Your task to perform on an android device: install app "Microsoft Authenticator" Image 0: 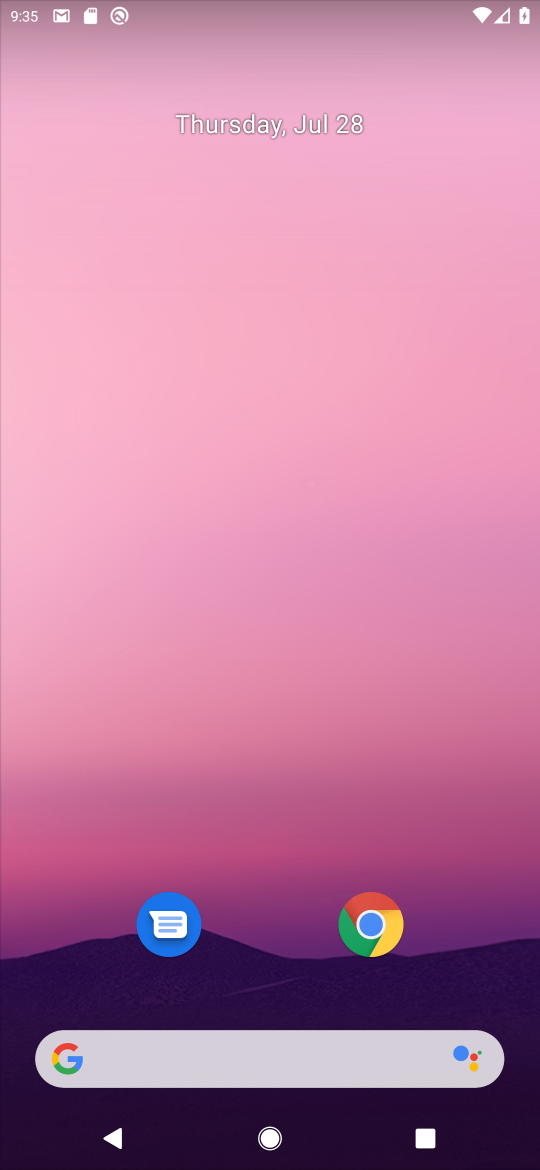
Step 0: drag from (267, 1055) to (330, 187)
Your task to perform on an android device: install app "Microsoft Authenticator" Image 1: 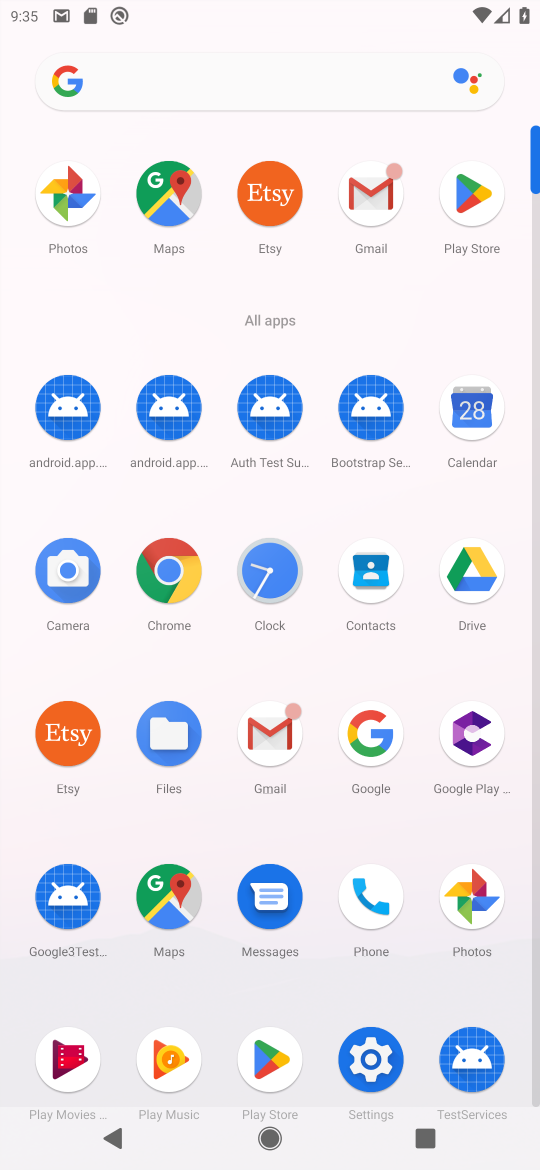
Step 1: click (261, 1078)
Your task to perform on an android device: install app "Microsoft Authenticator" Image 2: 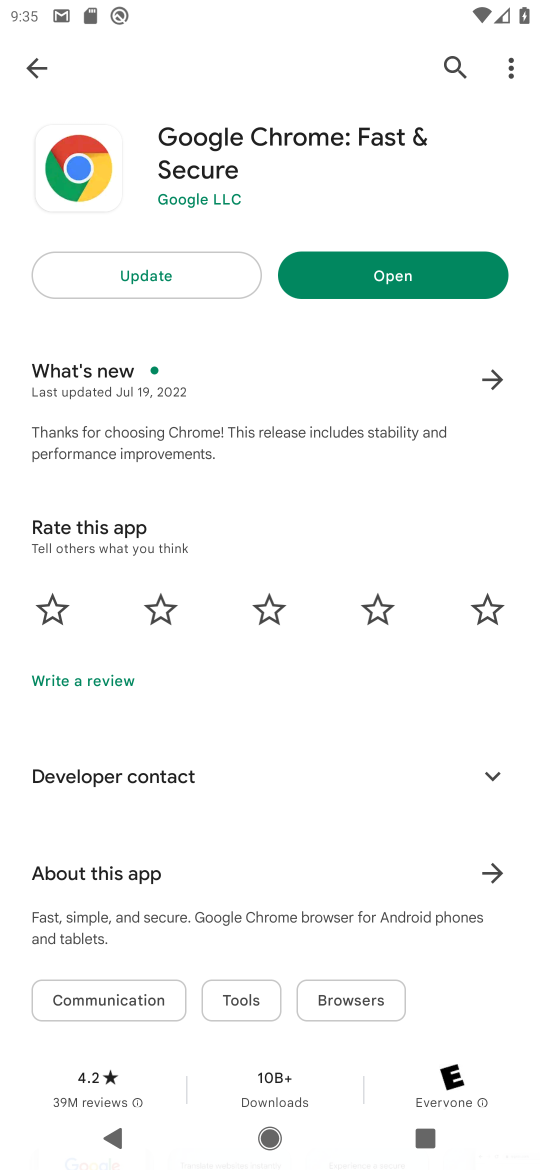
Step 2: click (457, 59)
Your task to perform on an android device: install app "Microsoft Authenticator" Image 3: 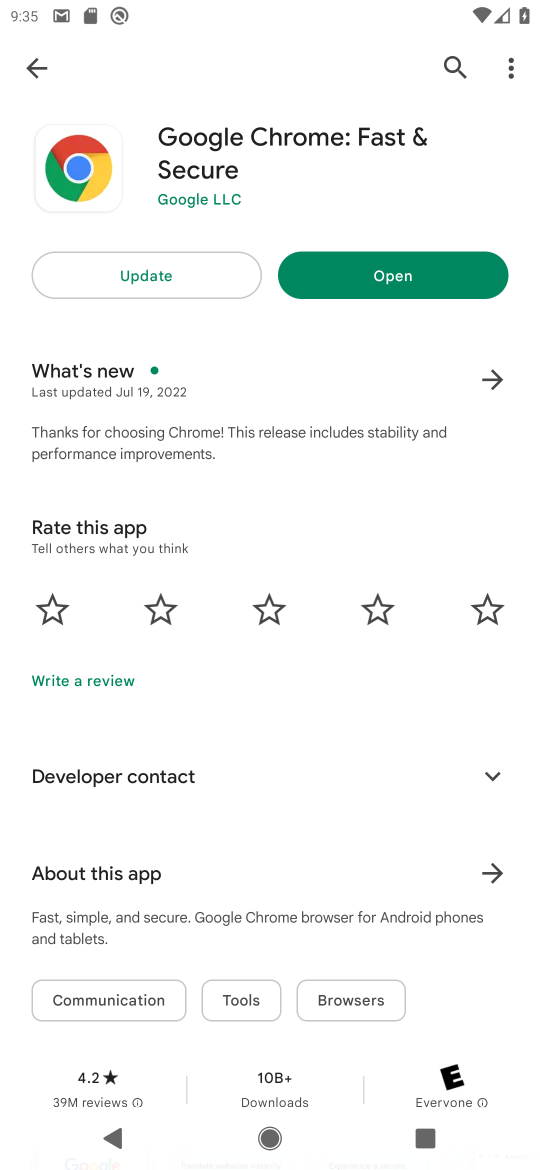
Step 3: click (449, 68)
Your task to perform on an android device: install app "Microsoft Authenticator" Image 4: 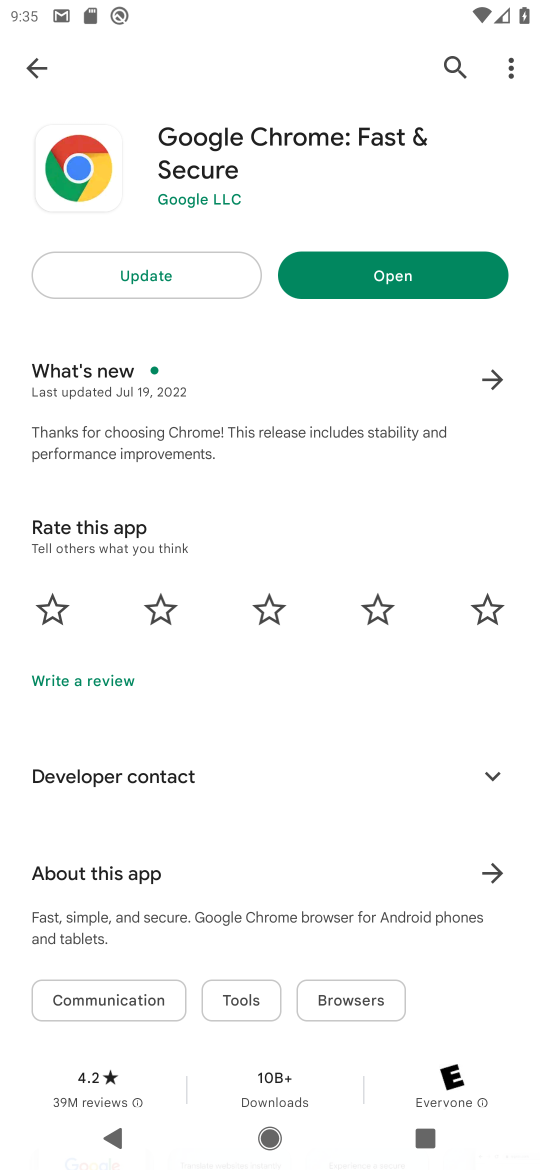
Step 4: click (448, 82)
Your task to perform on an android device: install app "Microsoft Authenticator" Image 5: 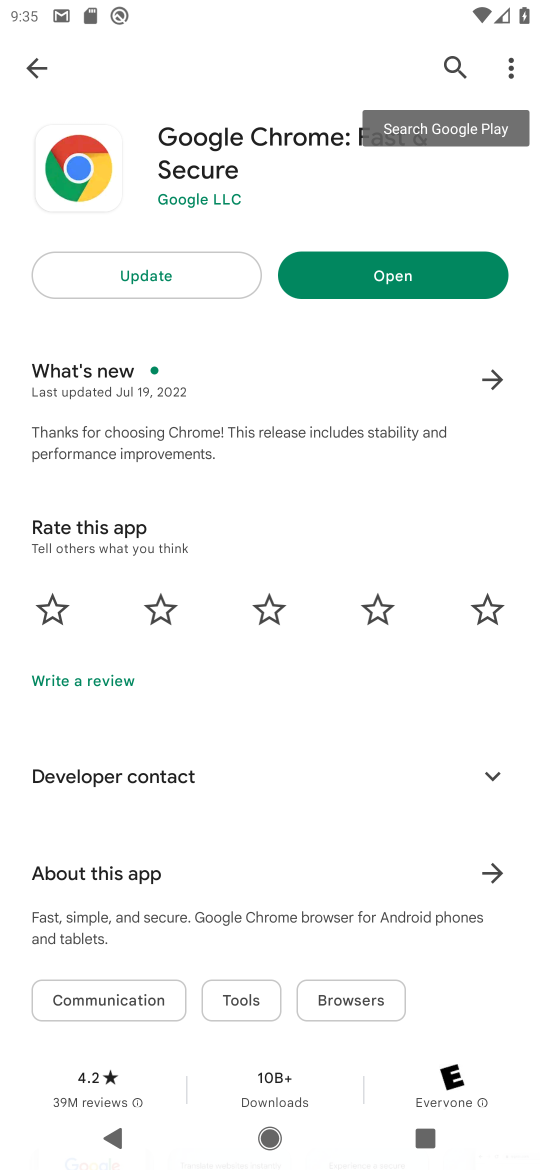
Step 5: click (432, 74)
Your task to perform on an android device: install app "Microsoft Authenticator" Image 6: 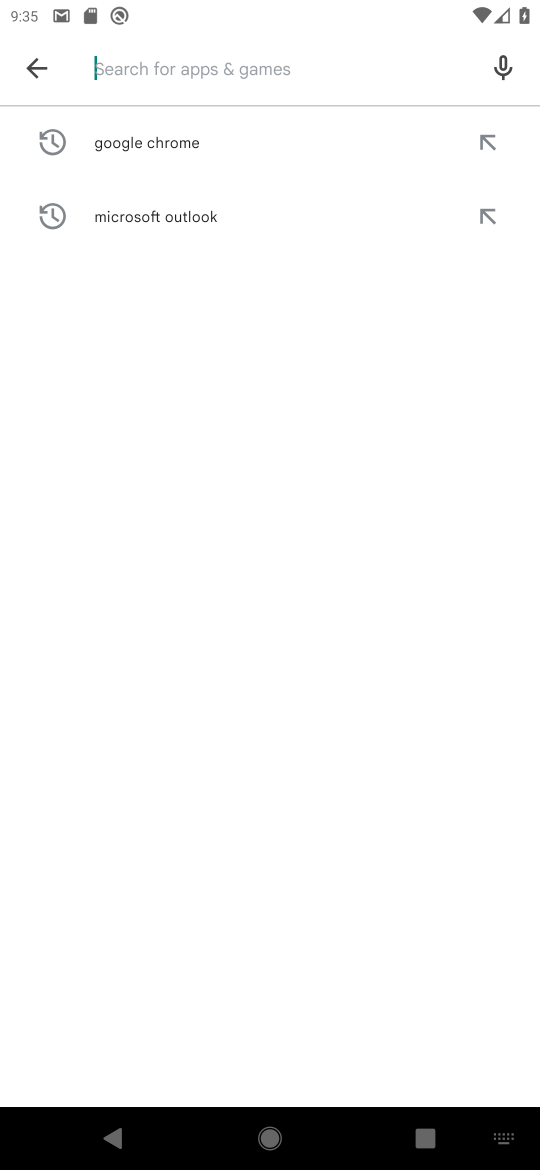
Step 6: type "Microsoft Authenticator"
Your task to perform on an android device: install app "Microsoft Authenticator" Image 7: 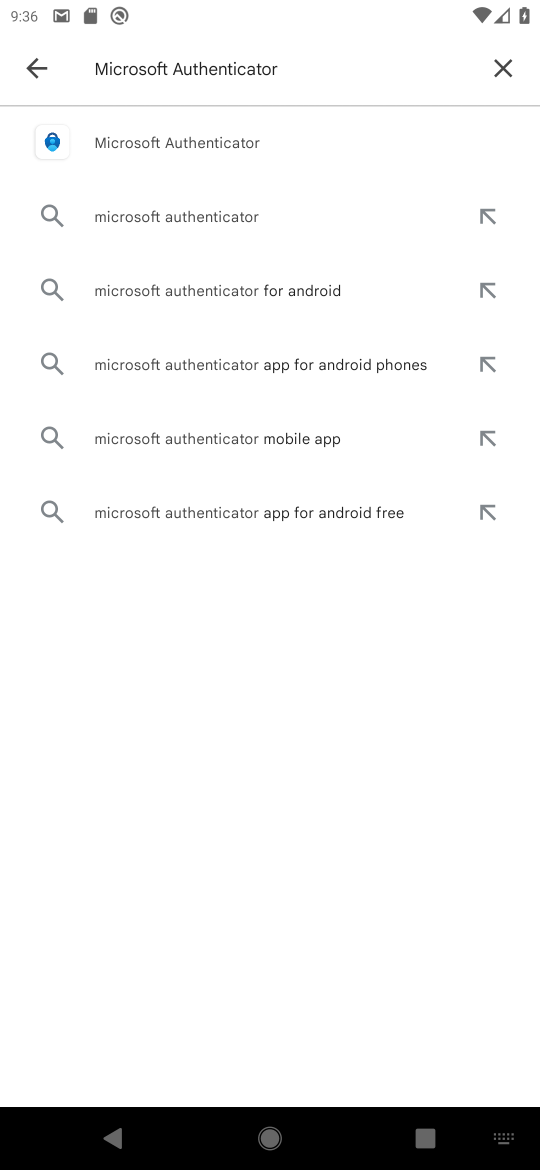
Step 7: click (214, 154)
Your task to perform on an android device: install app "Microsoft Authenticator" Image 8: 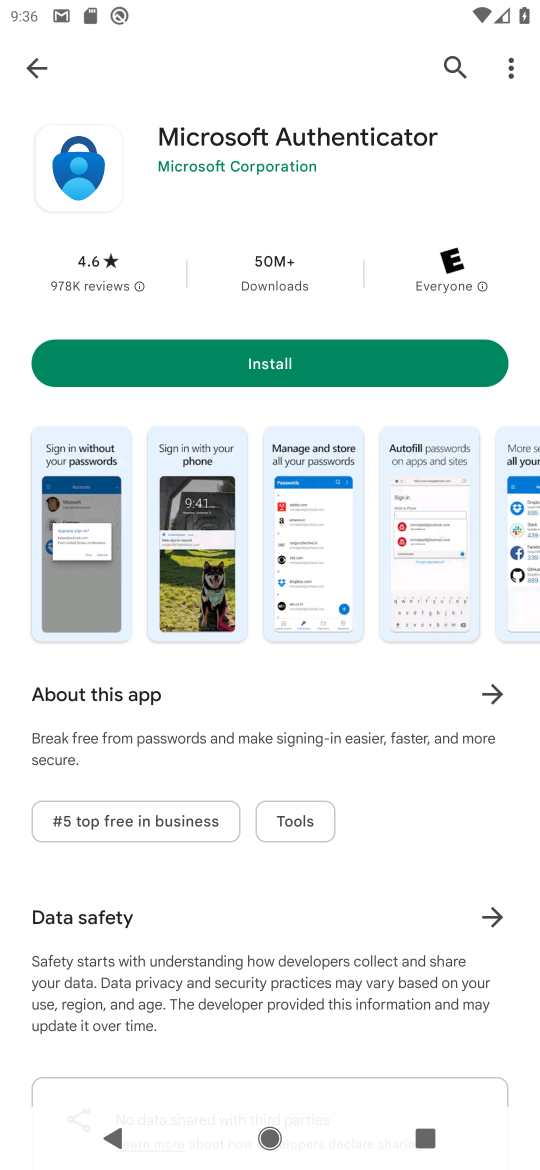
Step 8: click (274, 342)
Your task to perform on an android device: install app "Microsoft Authenticator" Image 9: 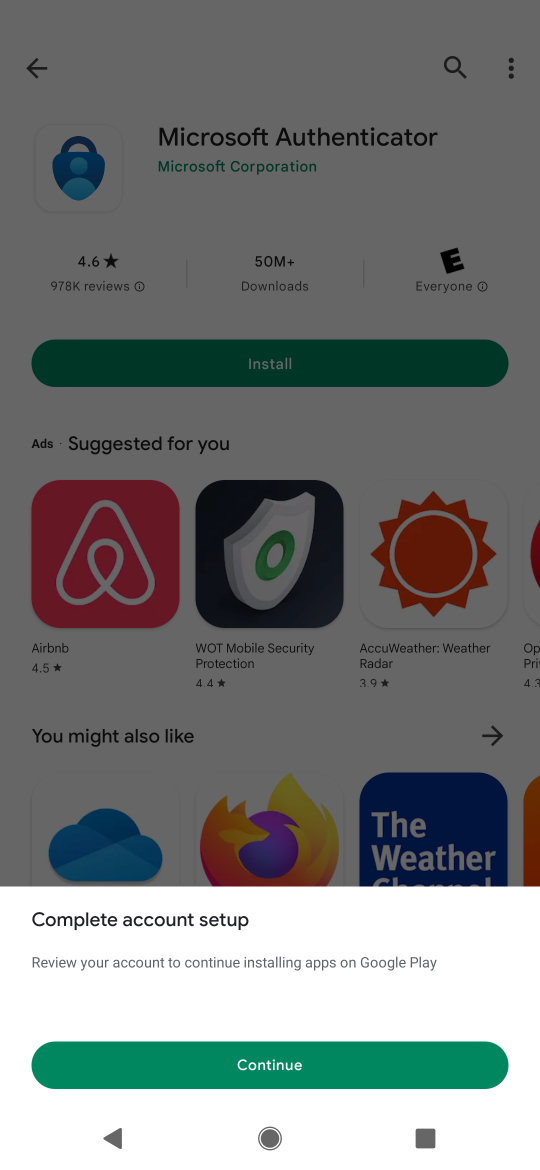
Step 9: click (304, 1038)
Your task to perform on an android device: install app "Microsoft Authenticator" Image 10: 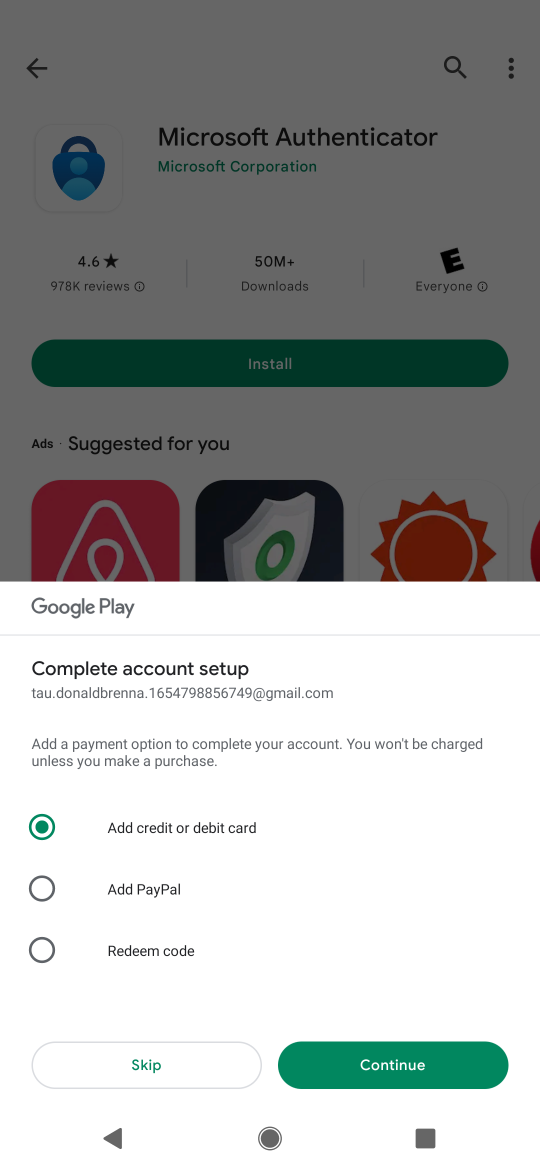
Step 10: click (194, 1059)
Your task to perform on an android device: install app "Microsoft Authenticator" Image 11: 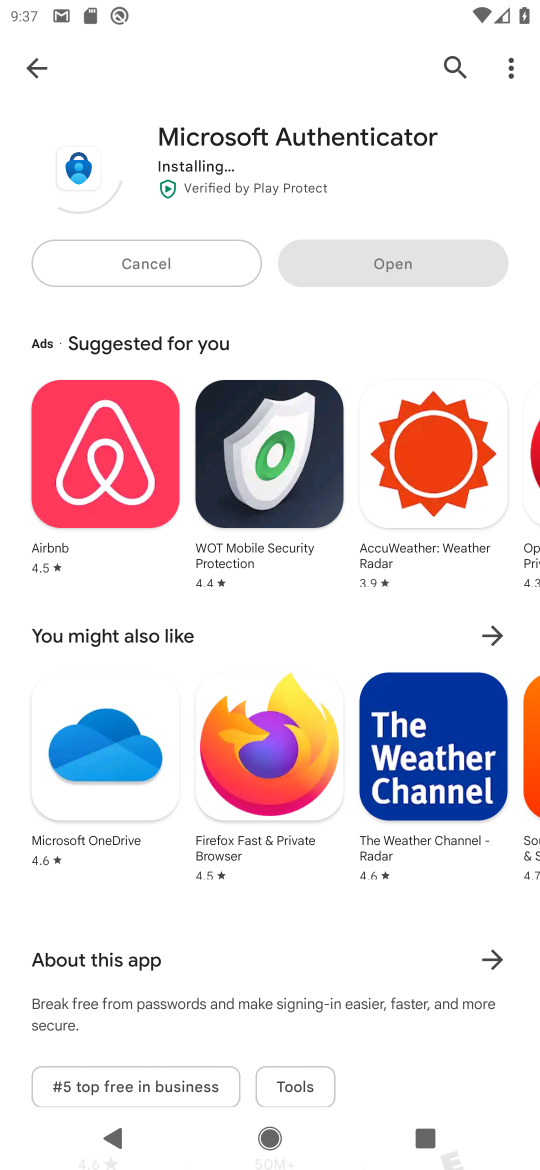
Step 11: task complete